Your task to perform on an android device: open a new tab in the chrome app Image 0: 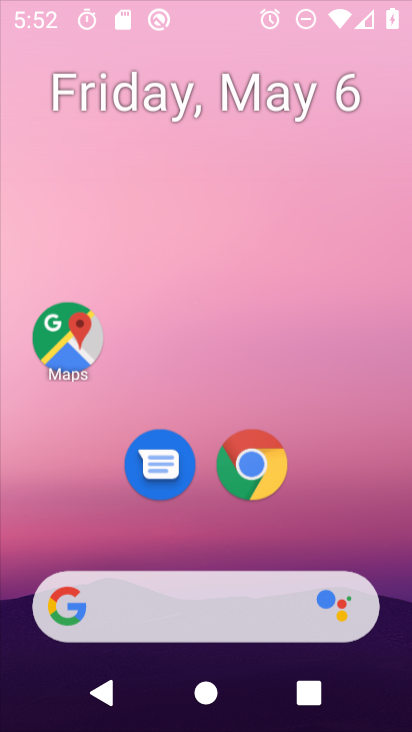
Step 0: click (298, 172)
Your task to perform on an android device: open a new tab in the chrome app Image 1: 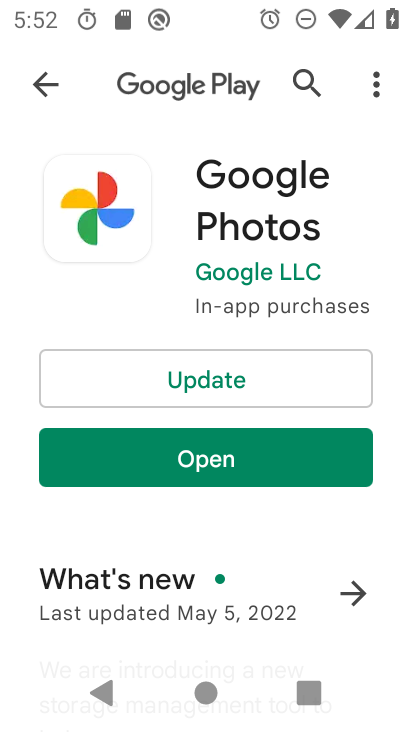
Step 1: press home button
Your task to perform on an android device: open a new tab in the chrome app Image 2: 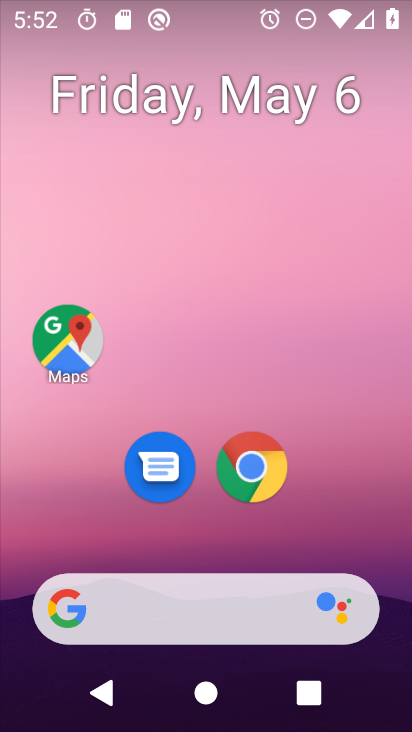
Step 2: click (244, 481)
Your task to perform on an android device: open a new tab in the chrome app Image 3: 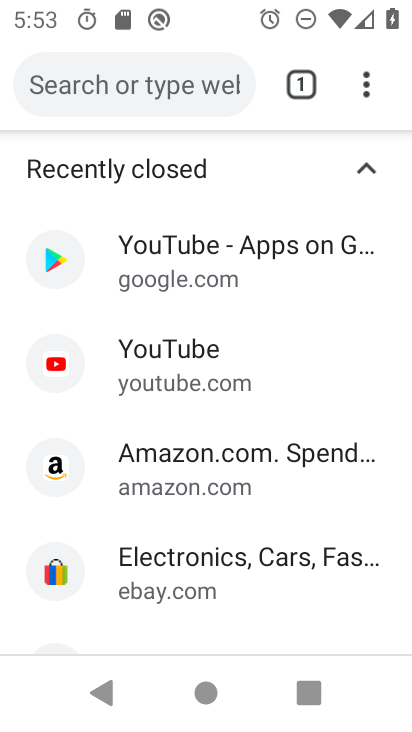
Step 3: click (370, 76)
Your task to perform on an android device: open a new tab in the chrome app Image 4: 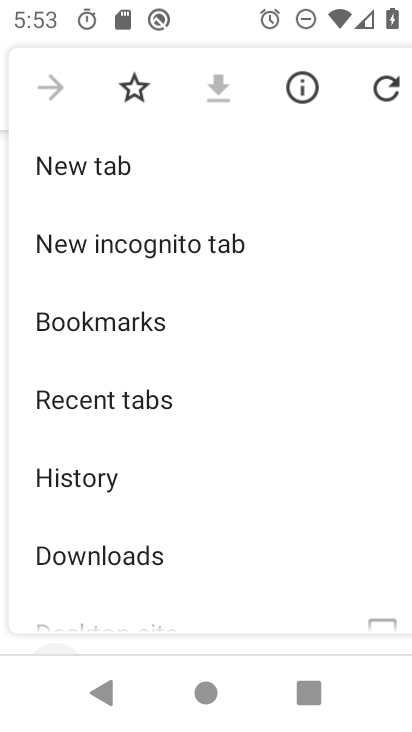
Step 4: click (141, 168)
Your task to perform on an android device: open a new tab in the chrome app Image 5: 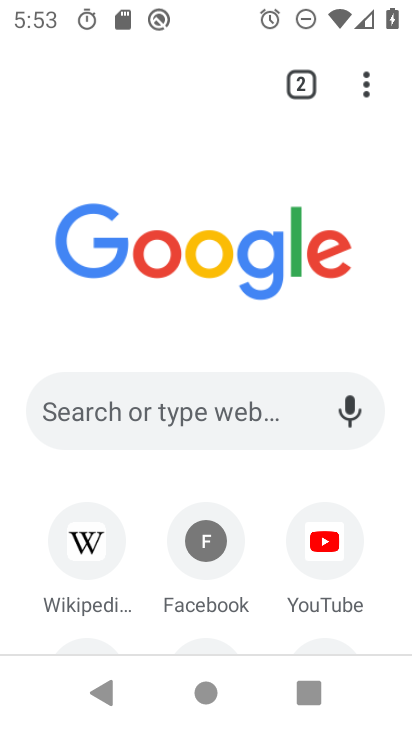
Step 5: task complete